Your task to perform on an android device: check google app version Image 0: 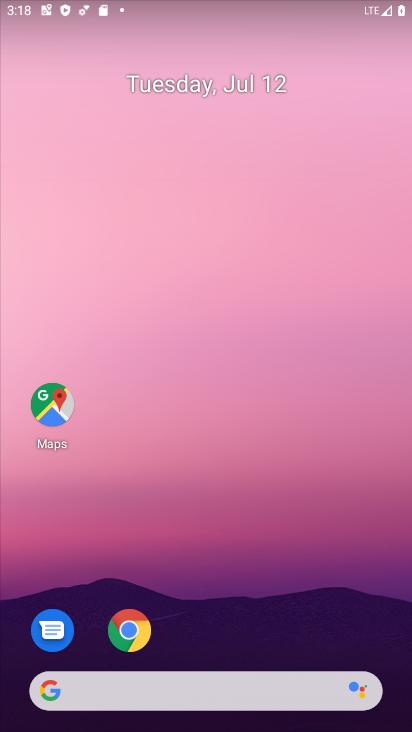
Step 0: drag from (352, 560) to (353, 72)
Your task to perform on an android device: check google app version Image 1: 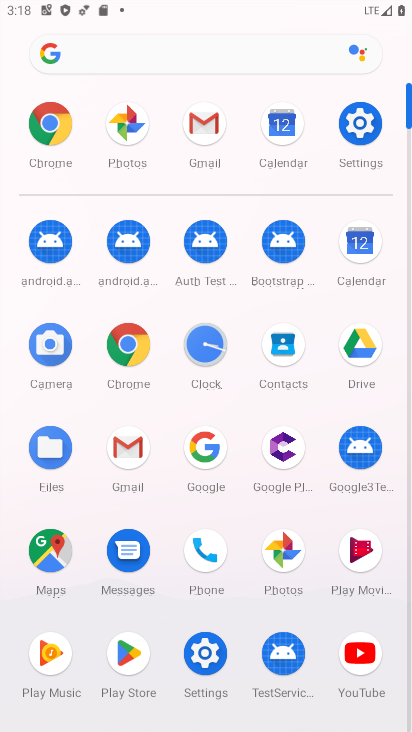
Step 1: click (125, 339)
Your task to perform on an android device: check google app version Image 2: 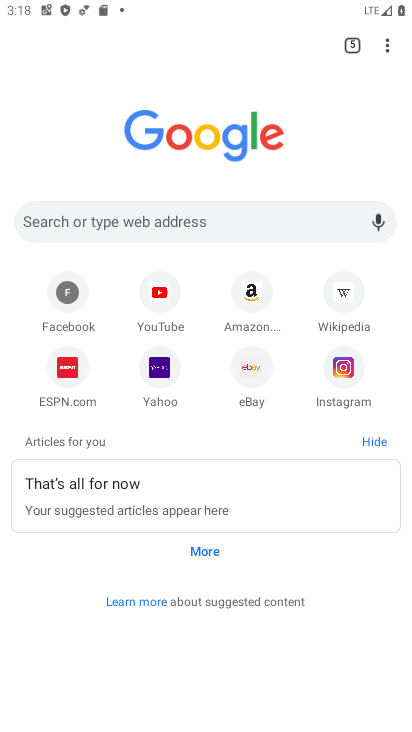
Step 2: click (384, 44)
Your task to perform on an android device: check google app version Image 3: 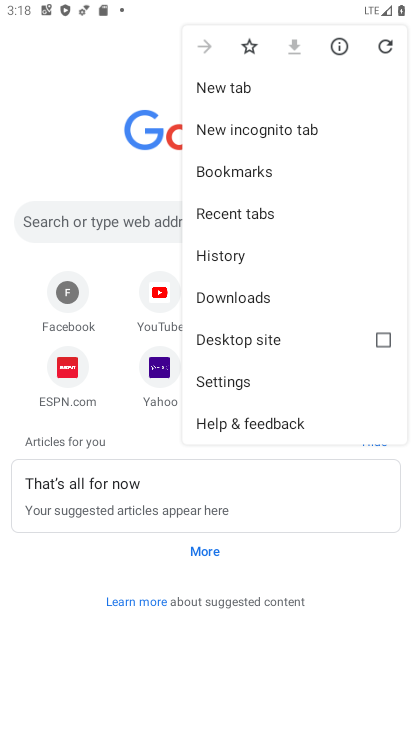
Step 3: click (262, 425)
Your task to perform on an android device: check google app version Image 4: 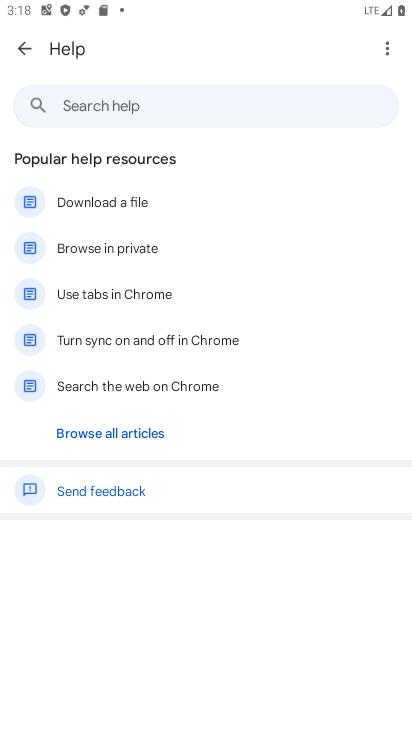
Step 4: click (384, 50)
Your task to perform on an android device: check google app version Image 5: 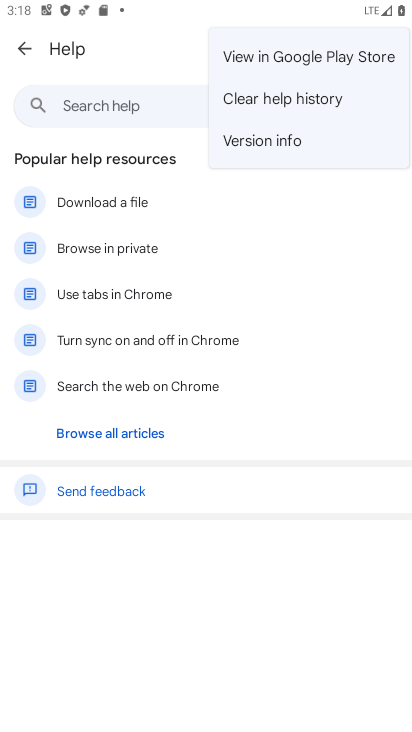
Step 5: click (283, 138)
Your task to perform on an android device: check google app version Image 6: 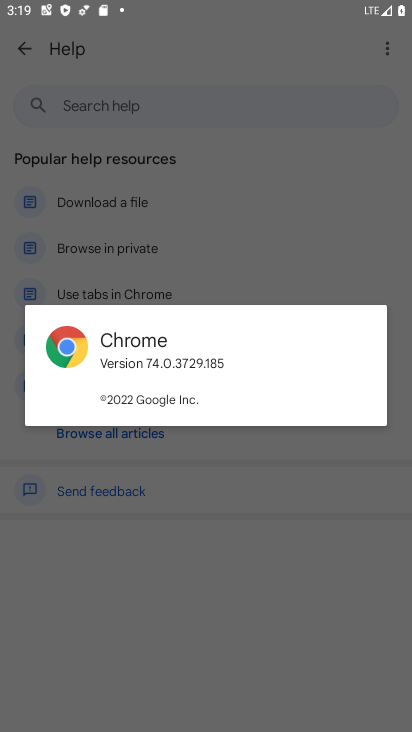
Step 6: task complete